Your task to perform on an android device: visit the assistant section in the google photos Image 0: 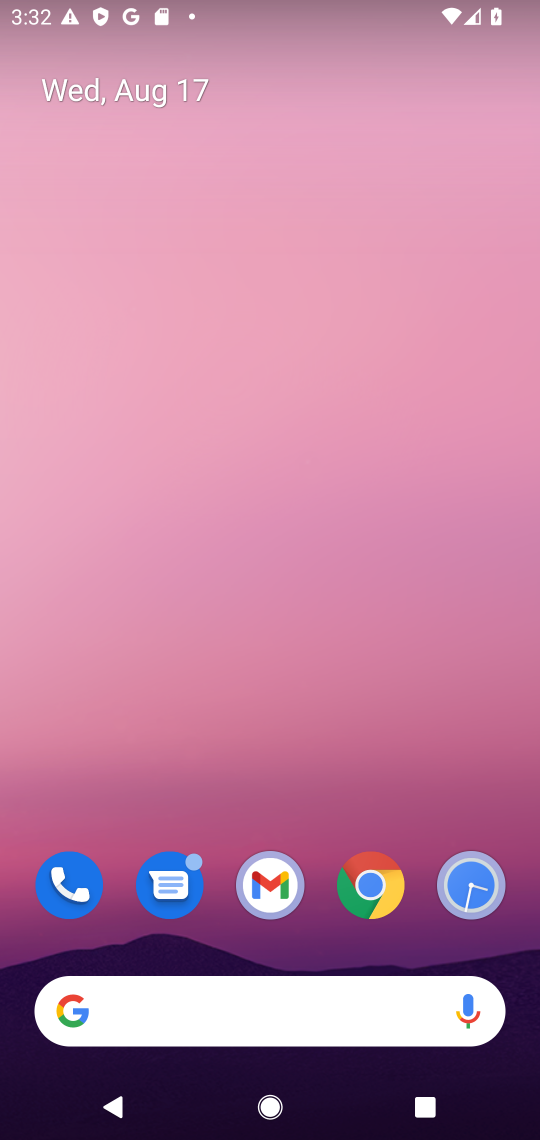
Step 0: drag from (213, 1029) to (190, 413)
Your task to perform on an android device: visit the assistant section in the google photos Image 1: 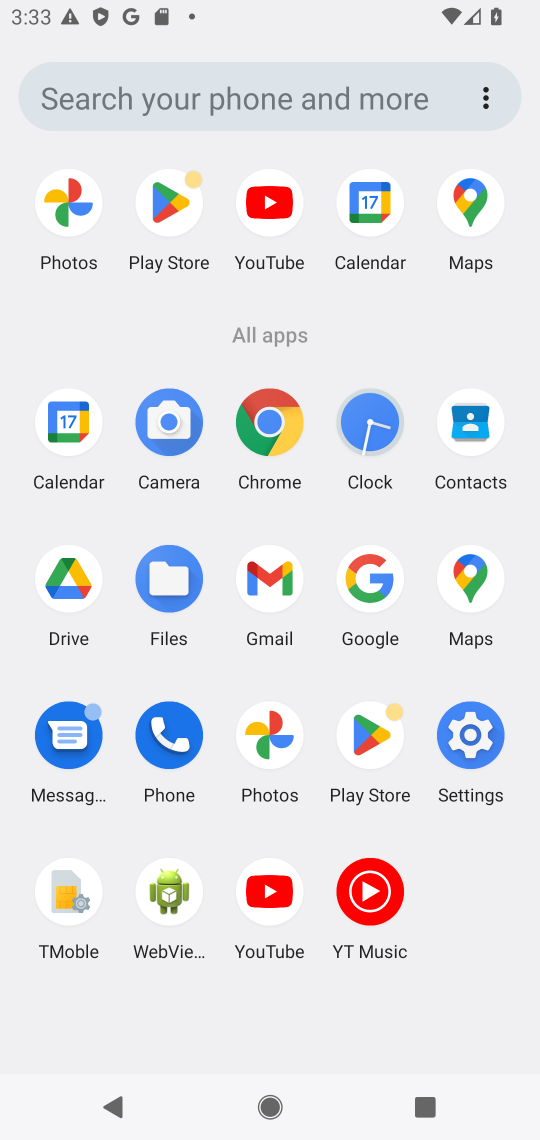
Step 1: click (70, 206)
Your task to perform on an android device: visit the assistant section in the google photos Image 2: 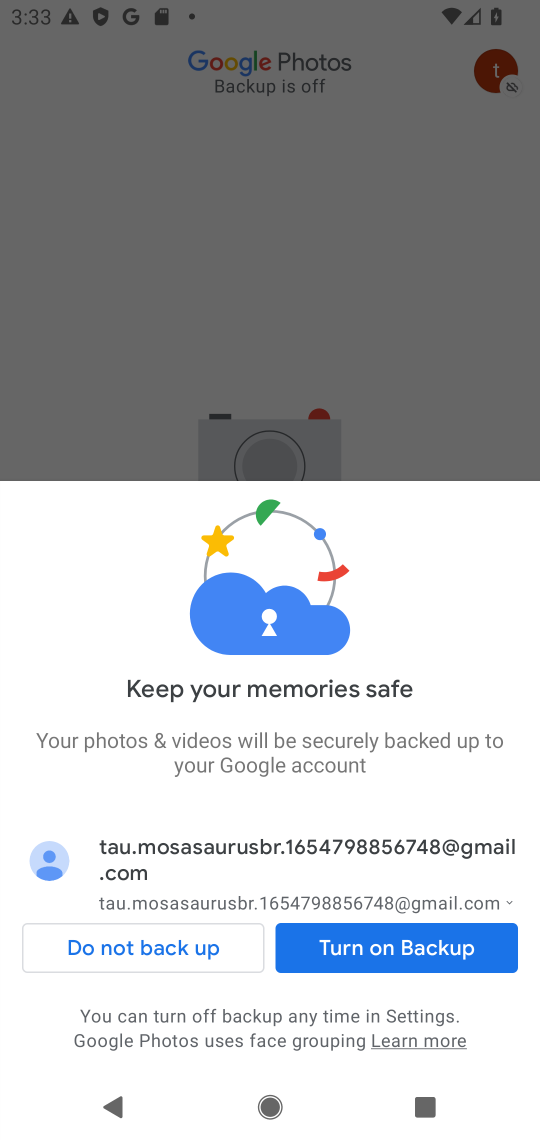
Step 2: click (198, 938)
Your task to perform on an android device: visit the assistant section in the google photos Image 3: 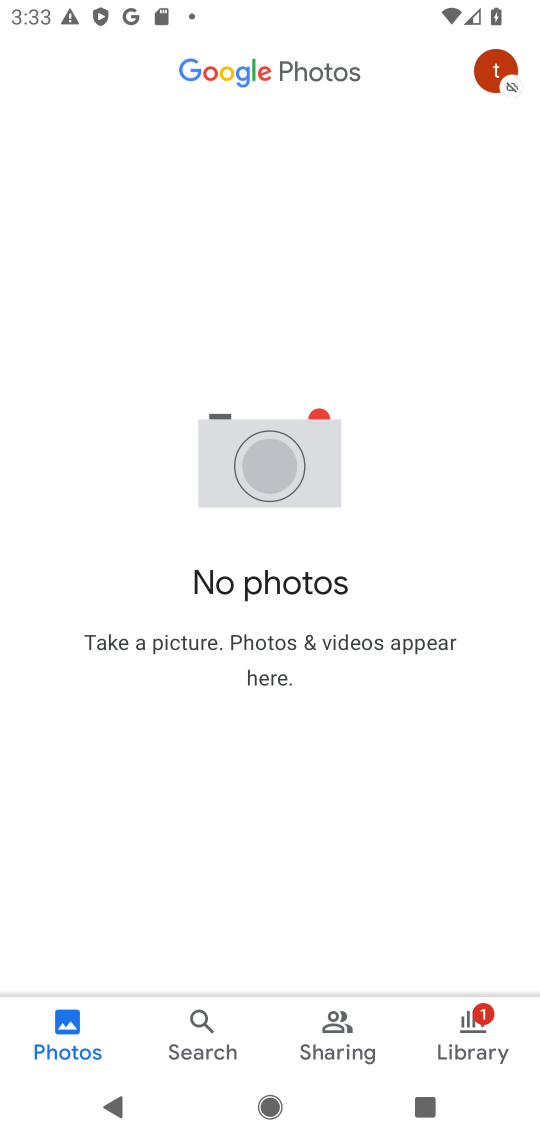
Step 3: click (477, 1023)
Your task to perform on an android device: visit the assistant section in the google photos Image 4: 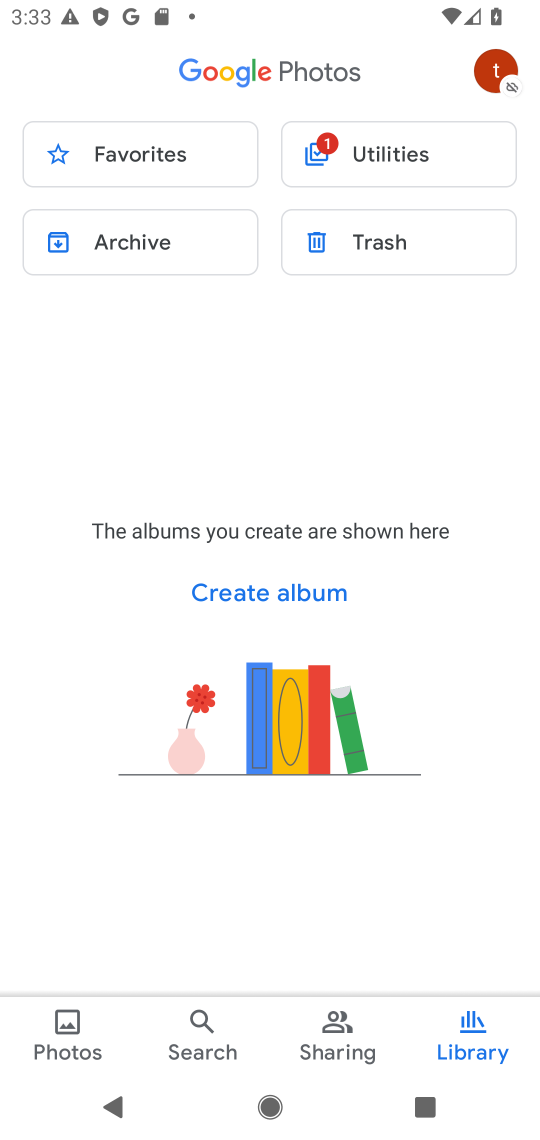
Step 4: click (371, 162)
Your task to perform on an android device: visit the assistant section in the google photos Image 5: 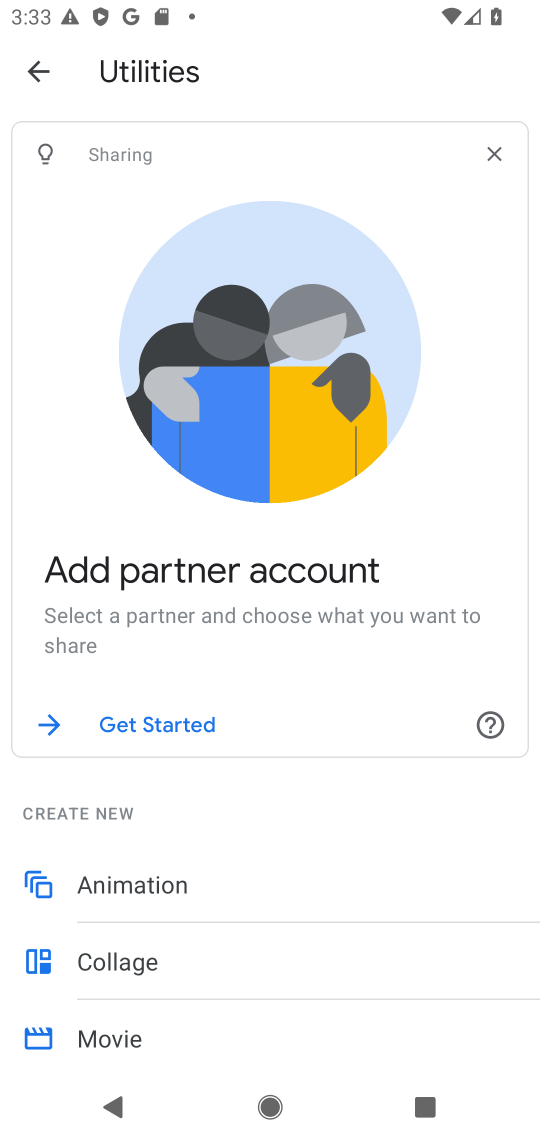
Step 5: drag from (204, 847) to (347, 671)
Your task to perform on an android device: visit the assistant section in the google photos Image 6: 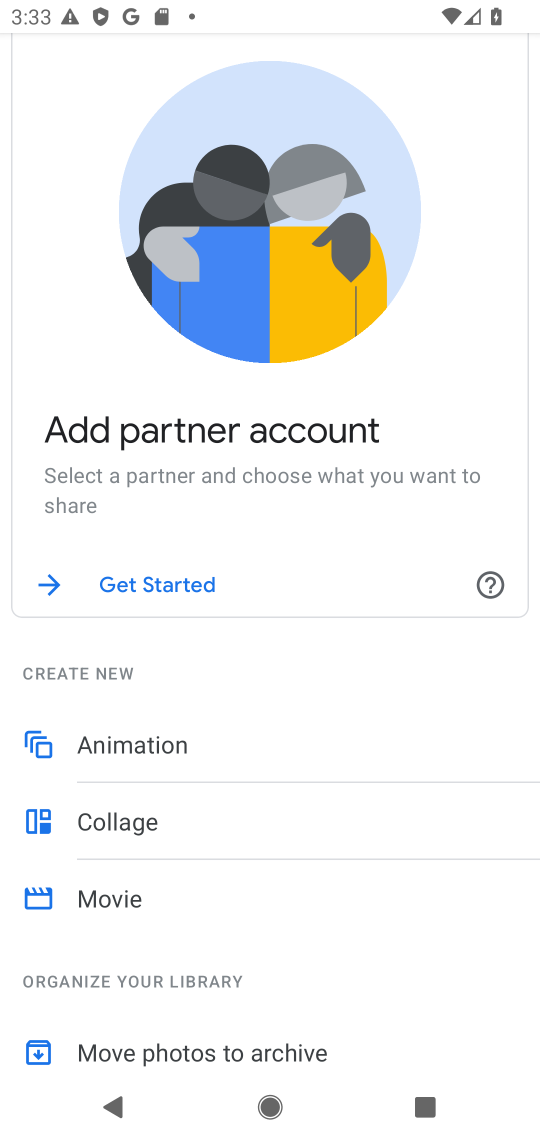
Step 6: drag from (217, 950) to (333, 767)
Your task to perform on an android device: visit the assistant section in the google photos Image 7: 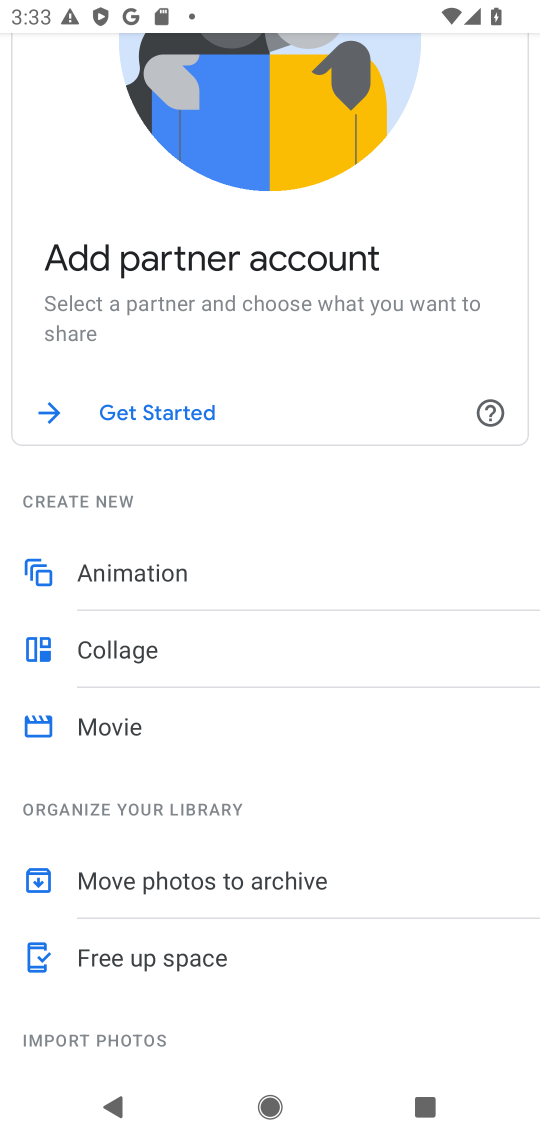
Step 7: drag from (218, 1012) to (281, 817)
Your task to perform on an android device: visit the assistant section in the google photos Image 8: 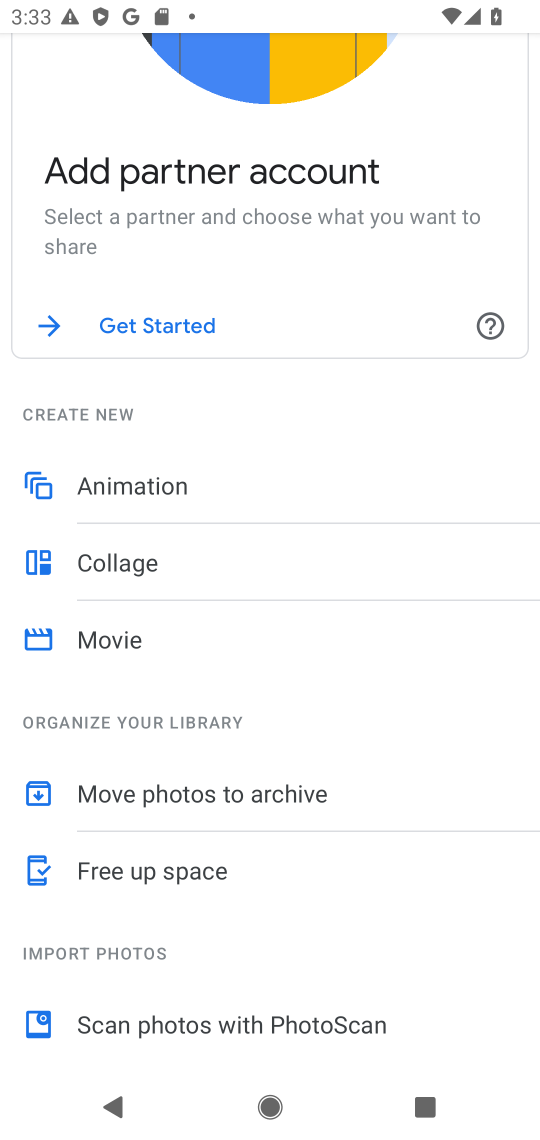
Step 8: press back button
Your task to perform on an android device: visit the assistant section in the google photos Image 9: 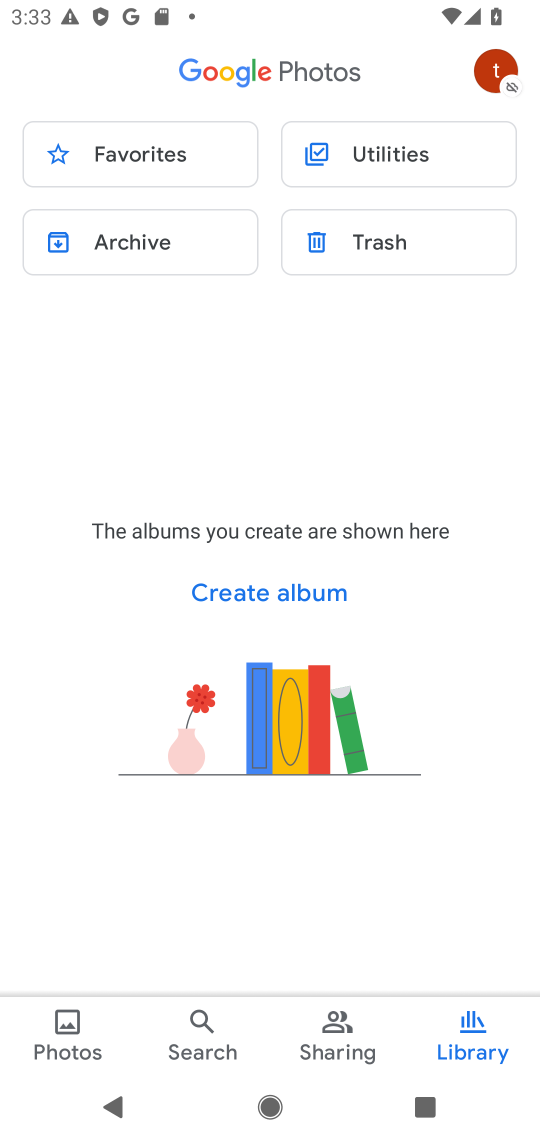
Step 9: click (124, 243)
Your task to perform on an android device: visit the assistant section in the google photos Image 10: 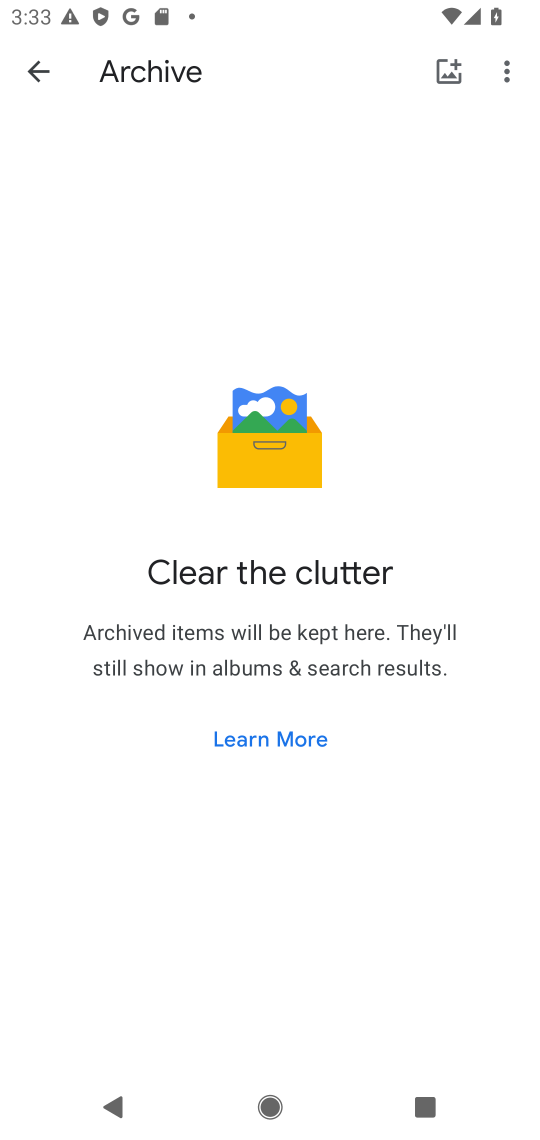
Step 10: press back button
Your task to perform on an android device: visit the assistant section in the google photos Image 11: 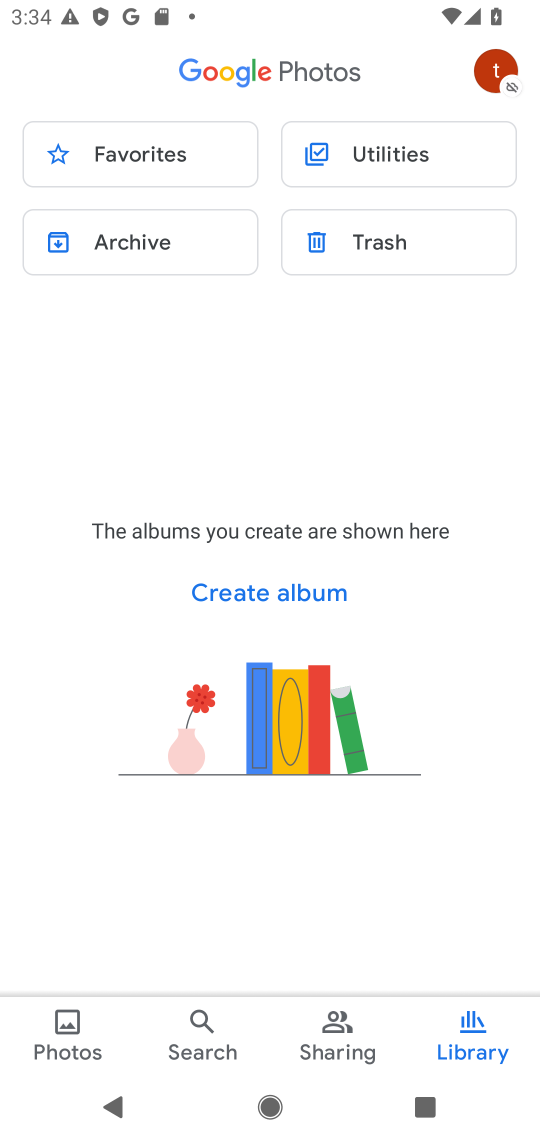
Step 11: click (73, 1044)
Your task to perform on an android device: visit the assistant section in the google photos Image 12: 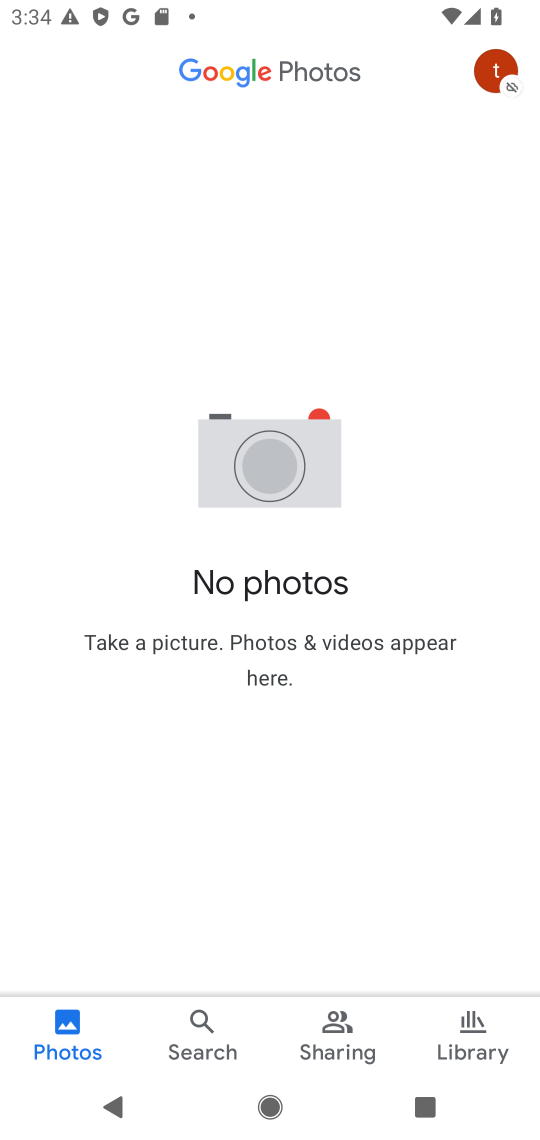
Step 12: task complete